Your task to perform on an android device: open app "Upside-Cash back on gas & food" (install if not already installed) Image 0: 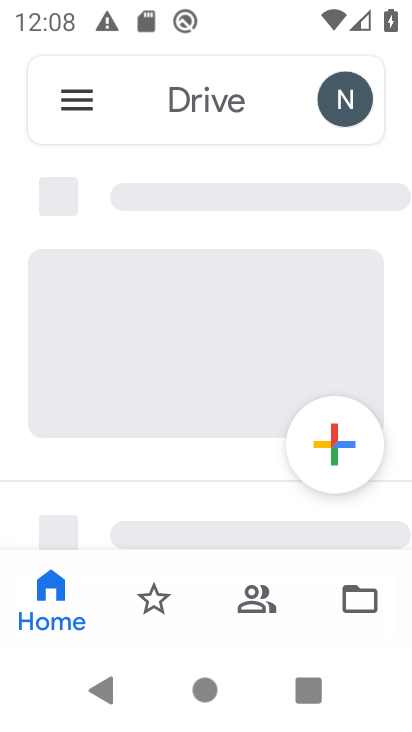
Step 0: press home button
Your task to perform on an android device: open app "Upside-Cash back on gas & food" (install if not already installed) Image 1: 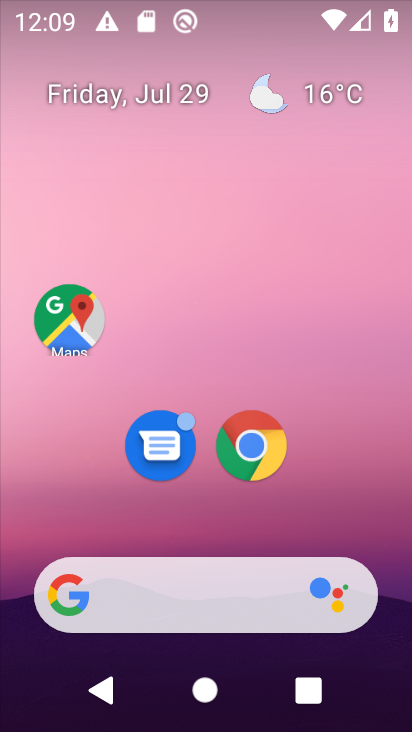
Step 1: drag from (339, 511) to (321, 20)
Your task to perform on an android device: open app "Upside-Cash back on gas & food" (install if not already installed) Image 2: 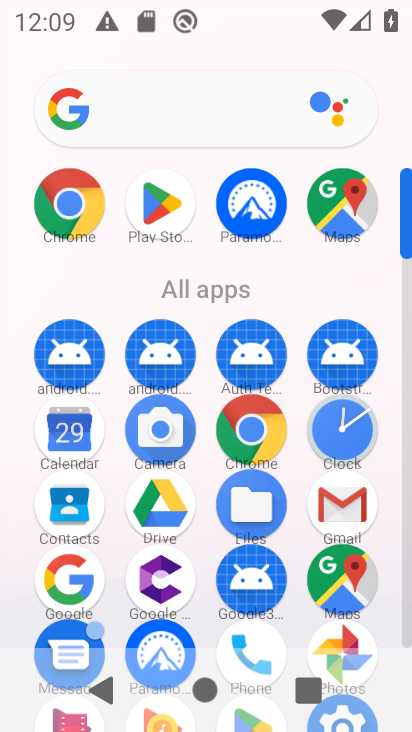
Step 2: click (405, 630)
Your task to perform on an android device: open app "Upside-Cash back on gas & food" (install if not already installed) Image 3: 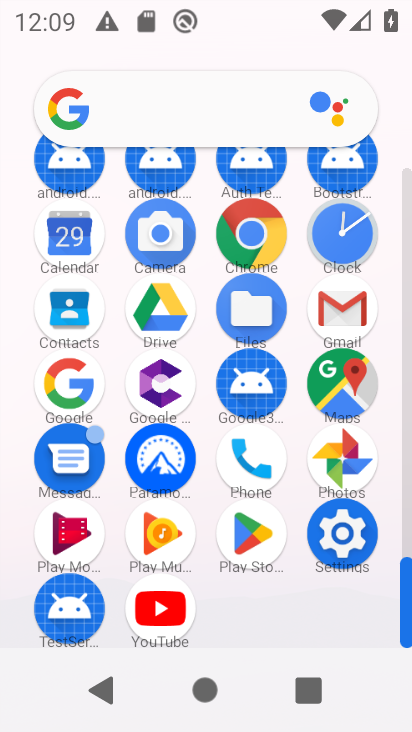
Step 3: click (244, 558)
Your task to perform on an android device: open app "Upside-Cash back on gas & food" (install if not already installed) Image 4: 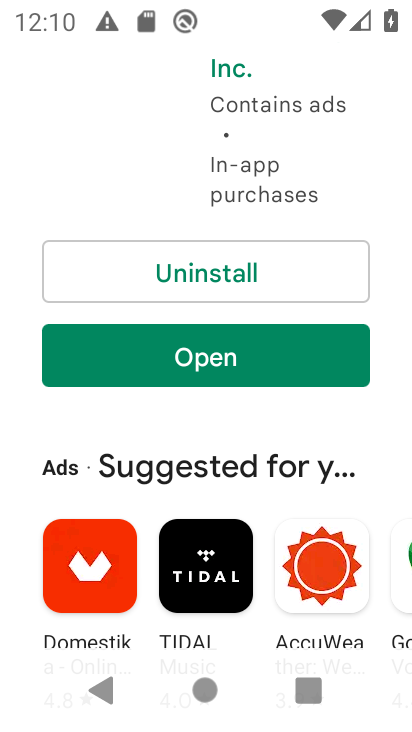
Step 4: drag from (258, 202) to (347, 714)
Your task to perform on an android device: open app "Upside-Cash back on gas & food" (install if not already installed) Image 5: 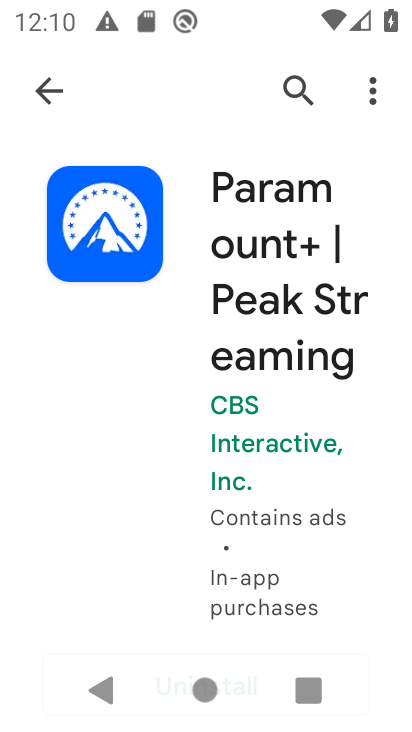
Step 5: click (284, 98)
Your task to perform on an android device: open app "Upside-Cash back on gas & food" (install if not already installed) Image 6: 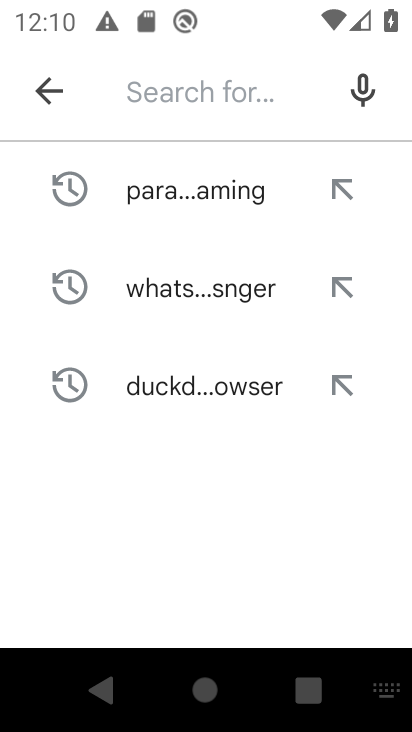
Step 6: type "Upside-Cash back on gas & food"
Your task to perform on an android device: open app "Upside-Cash back on gas & food" (install if not already installed) Image 7: 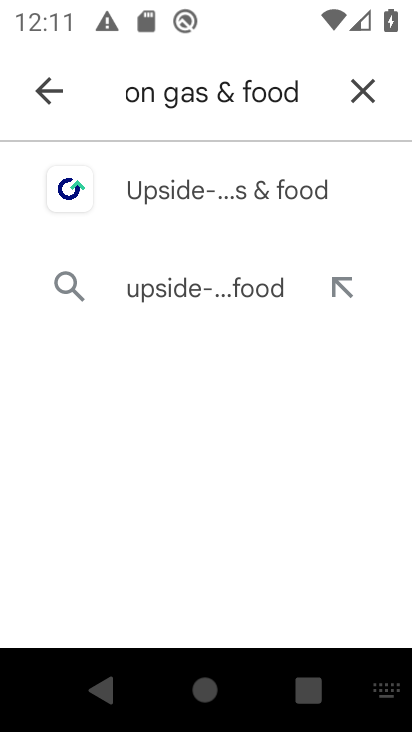
Step 7: click (143, 204)
Your task to perform on an android device: open app "Upside-Cash back on gas & food" (install if not already installed) Image 8: 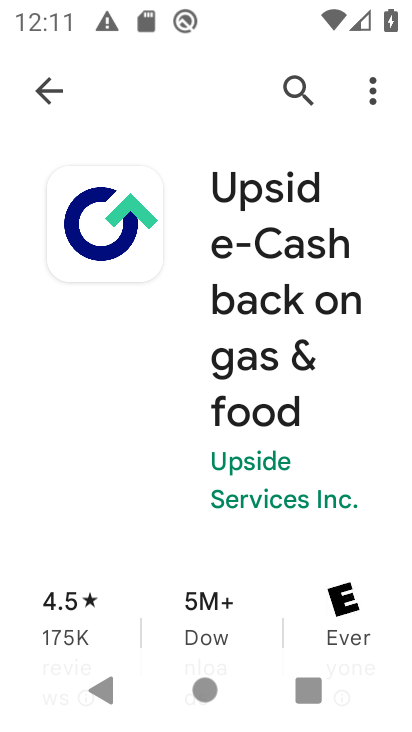
Step 8: drag from (143, 590) to (211, 185)
Your task to perform on an android device: open app "Upside-Cash back on gas & food" (install if not already installed) Image 9: 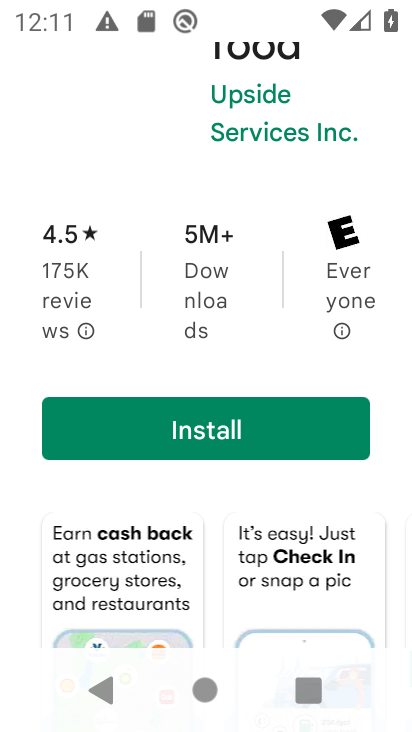
Step 9: click (217, 431)
Your task to perform on an android device: open app "Upside-Cash back on gas & food" (install if not already installed) Image 10: 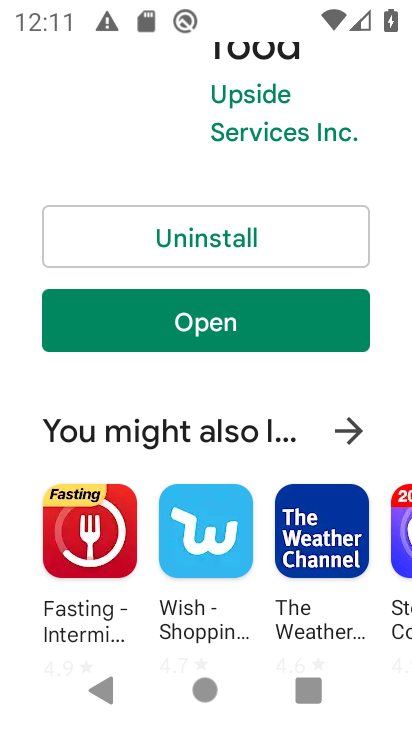
Step 10: click (228, 332)
Your task to perform on an android device: open app "Upside-Cash back on gas & food" (install if not already installed) Image 11: 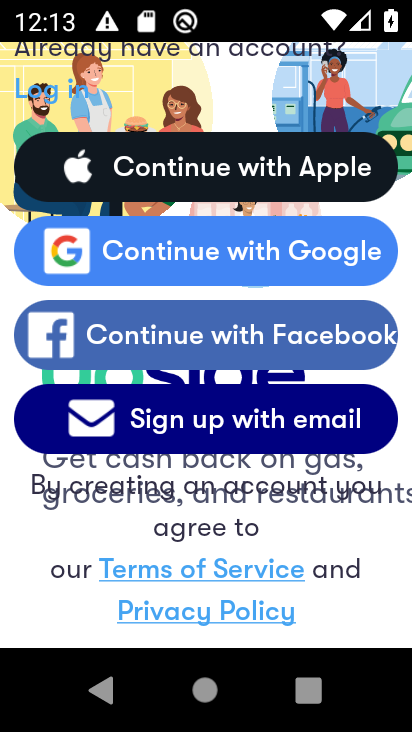
Step 11: task complete